Your task to perform on an android device: check google app version Image 0: 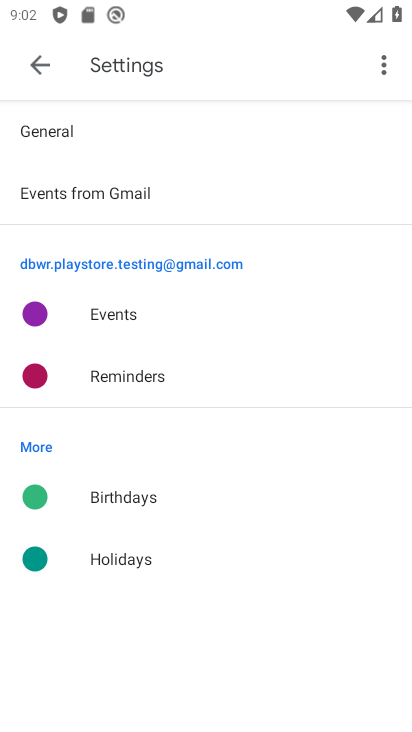
Step 0: press back button
Your task to perform on an android device: check google app version Image 1: 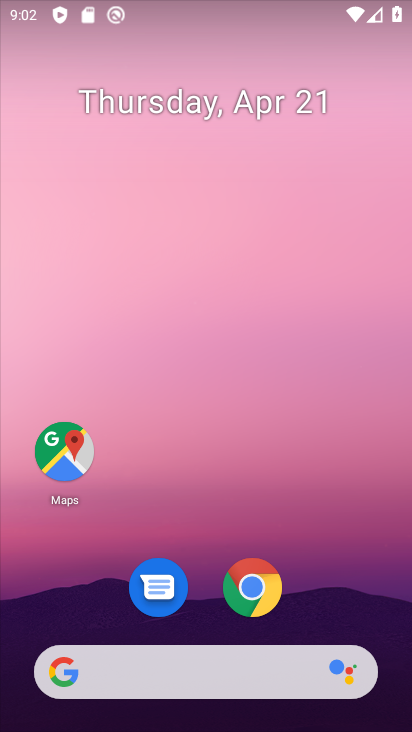
Step 1: drag from (185, 606) to (305, 19)
Your task to perform on an android device: check google app version Image 2: 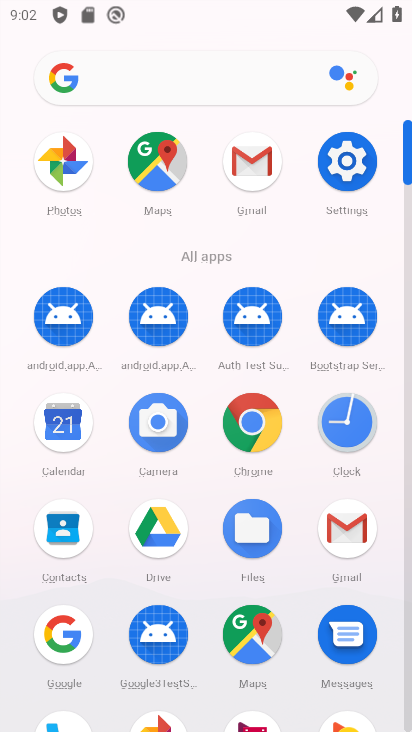
Step 2: click (48, 625)
Your task to perform on an android device: check google app version Image 3: 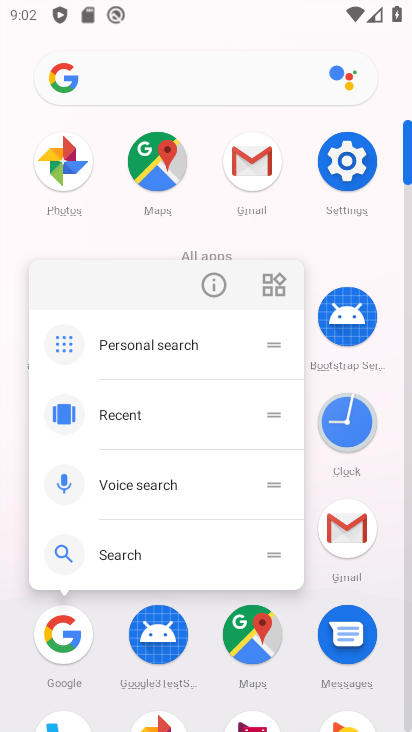
Step 3: click (213, 289)
Your task to perform on an android device: check google app version Image 4: 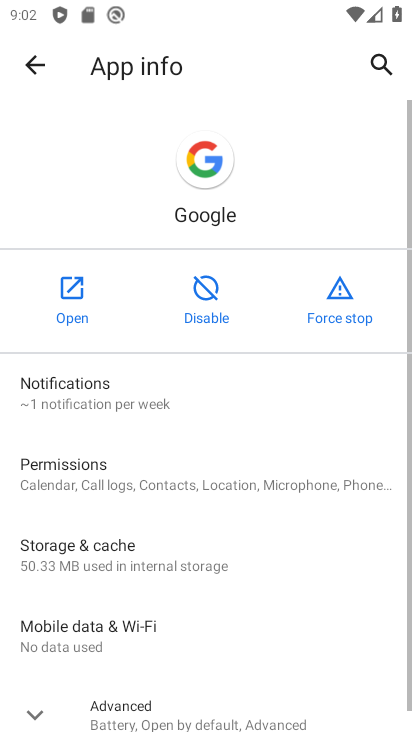
Step 4: drag from (177, 634) to (319, 64)
Your task to perform on an android device: check google app version Image 5: 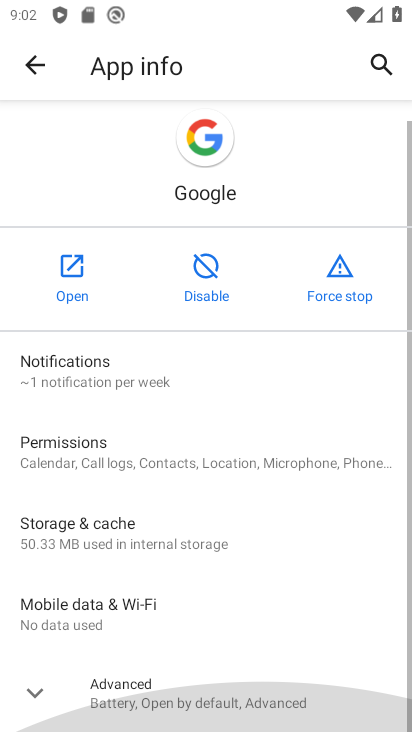
Step 5: drag from (225, 526) to (297, 116)
Your task to perform on an android device: check google app version Image 6: 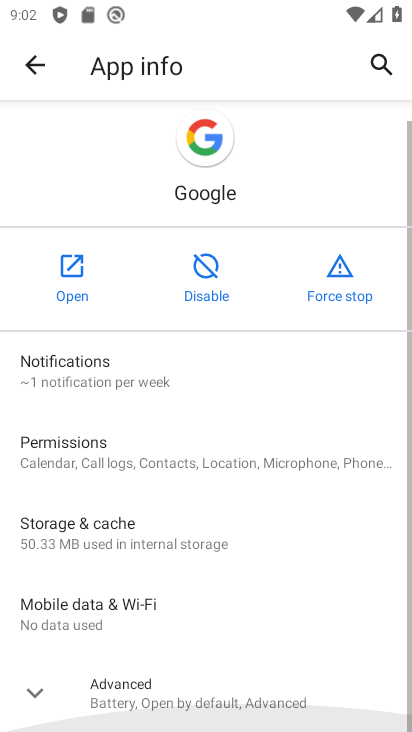
Step 6: click (142, 689)
Your task to perform on an android device: check google app version Image 7: 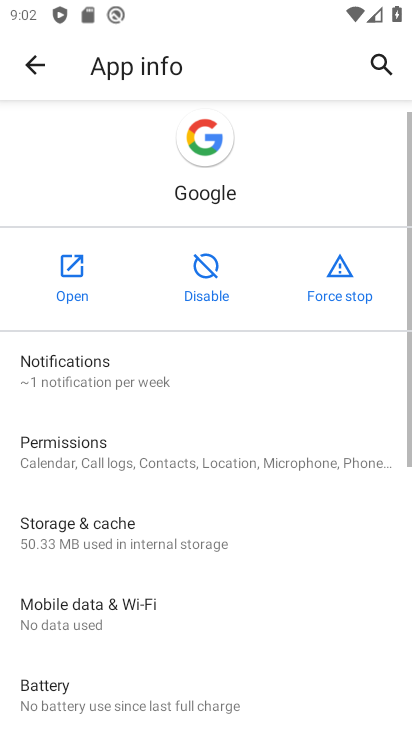
Step 7: task complete